Your task to perform on an android device: turn off wifi Image 0: 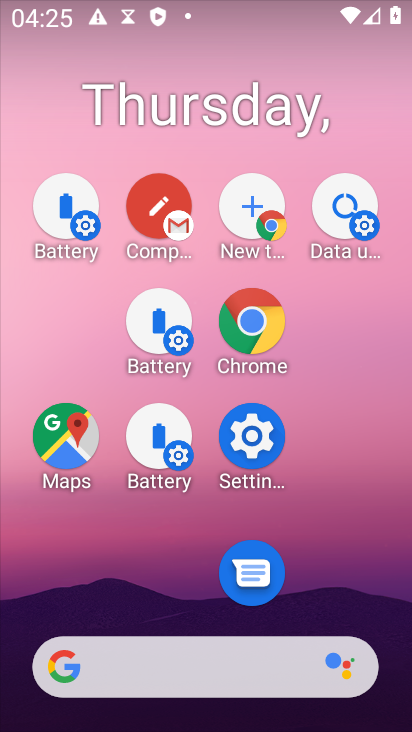
Step 0: drag from (174, 622) to (125, 283)
Your task to perform on an android device: turn off wifi Image 1: 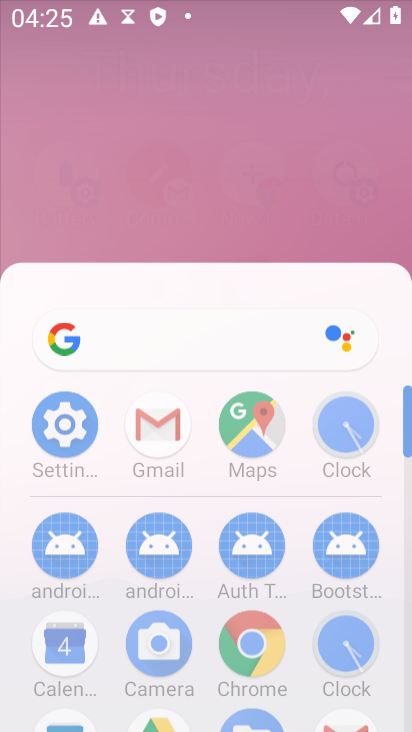
Step 1: drag from (192, 470) to (161, 278)
Your task to perform on an android device: turn off wifi Image 2: 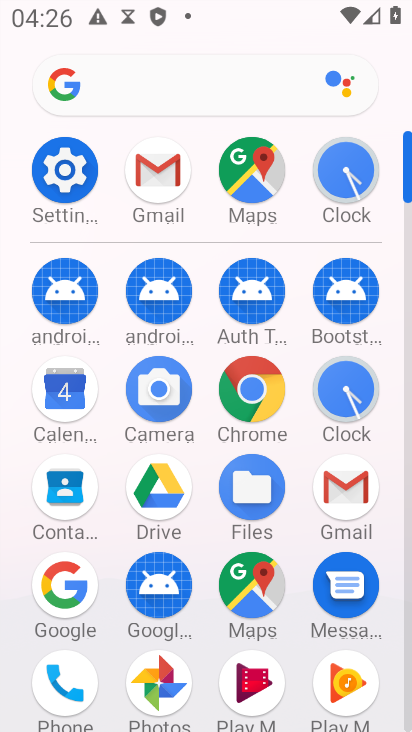
Step 2: click (53, 178)
Your task to perform on an android device: turn off wifi Image 3: 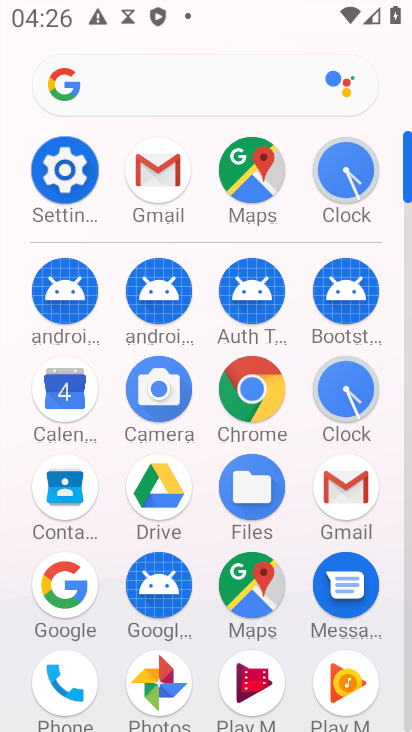
Step 3: click (52, 178)
Your task to perform on an android device: turn off wifi Image 4: 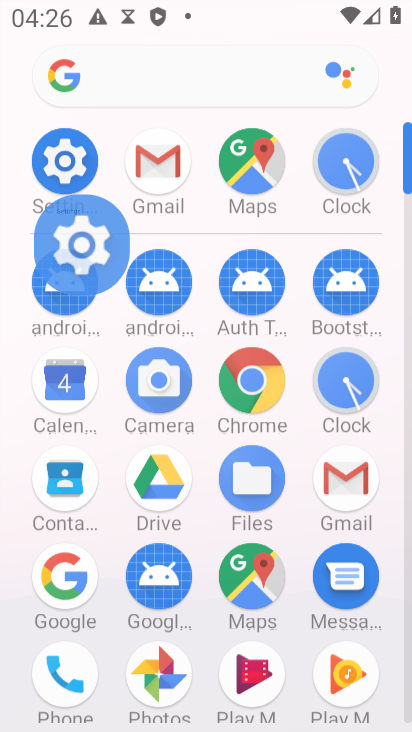
Step 4: click (53, 179)
Your task to perform on an android device: turn off wifi Image 5: 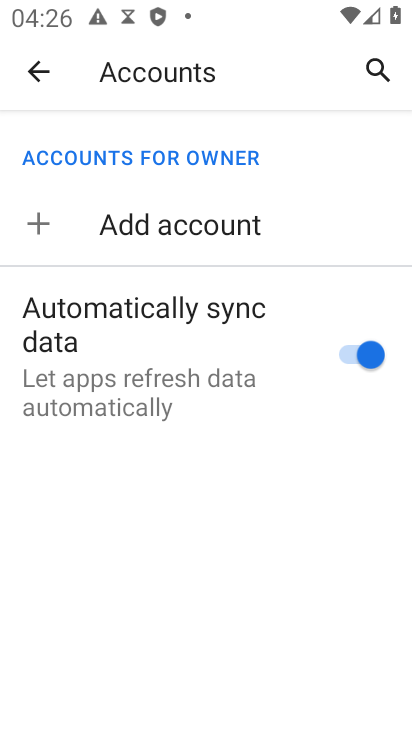
Step 5: click (32, 75)
Your task to perform on an android device: turn off wifi Image 6: 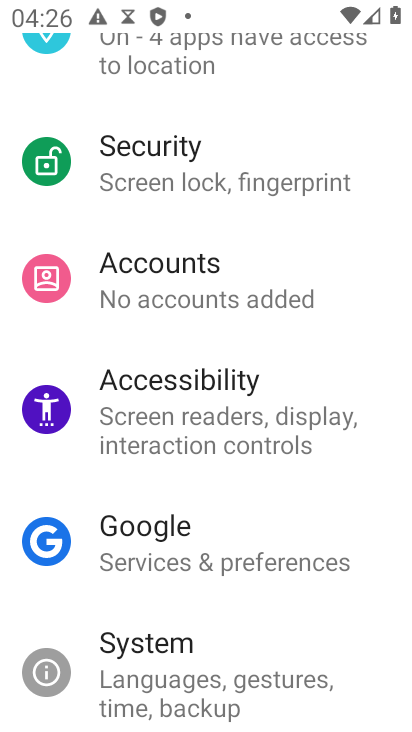
Step 6: drag from (139, 170) to (179, 461)
Your task to perform on an android device: turn off wifi Image 7: 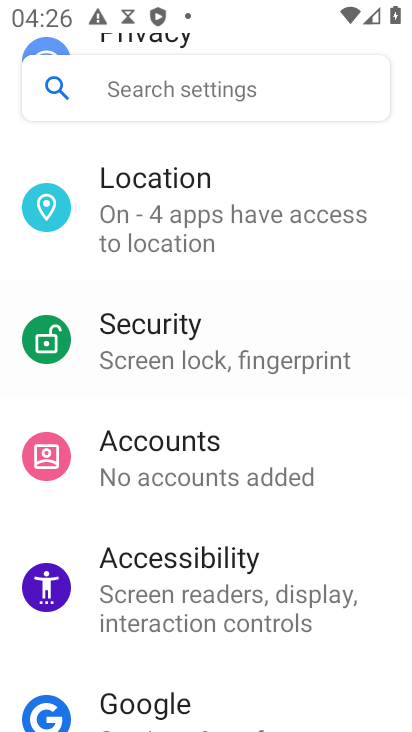
Step 7: drag from (146, 162) to (206, 276)
Your task to perform on an android device: turn off wifi Image 8: 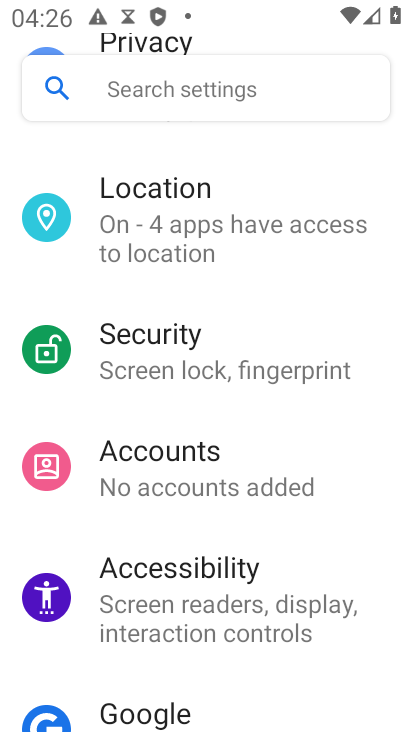
Step 8: drag from (155, 290) to (288, 622)
Your task to perform on an android device: turn off wifi Image 9: 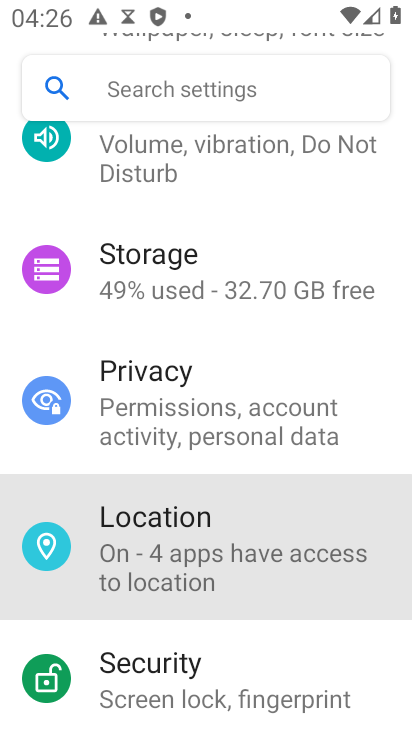
Step 9: drag from (290, 366) to (278, 581)
Your task to perform on an android device: turn off wifi Image 10: 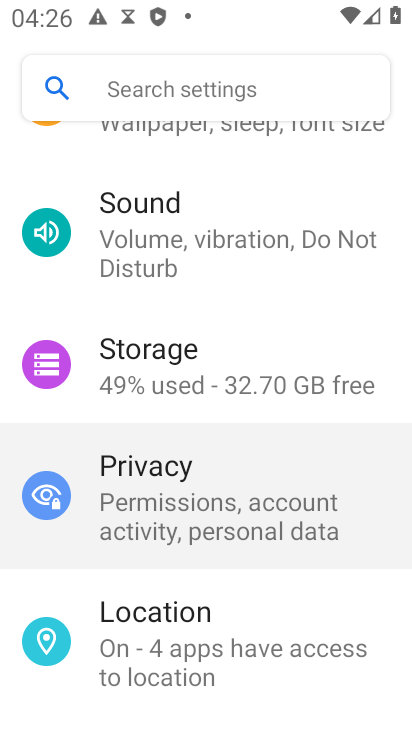
Step 10: drag from (265, 373) to (312, 652)
Your task to perform on an android device: turn off wifi Image 11: 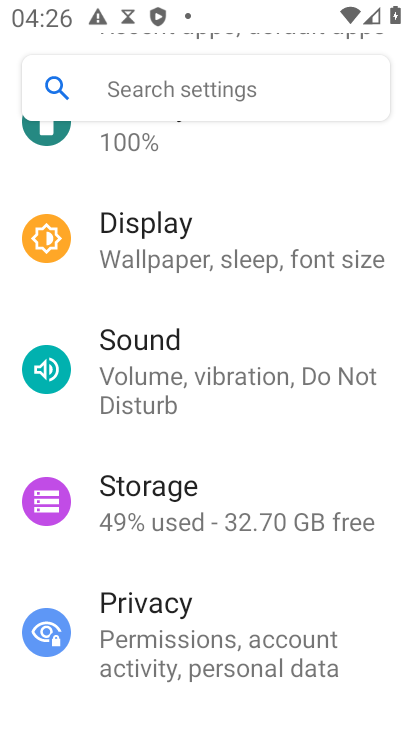
Step 11: drag from (256, 367) to (288, 619)
Your task to perform on an android device: turn off wifi Image 12: 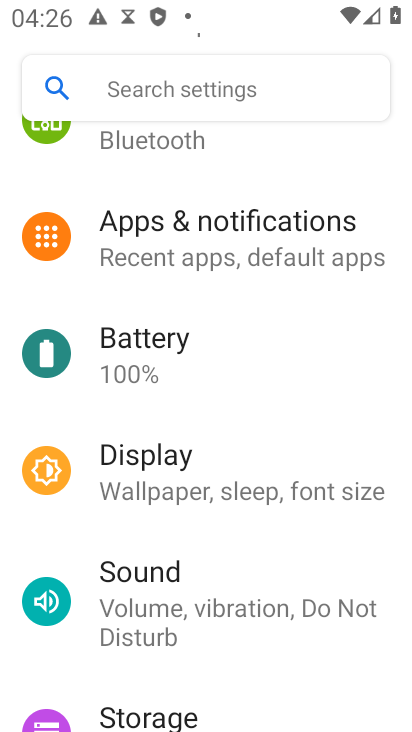
Step 12: drag from (260, 399) to (251, 706)
Your task to perform on an android device: turn off wifi Image 13: 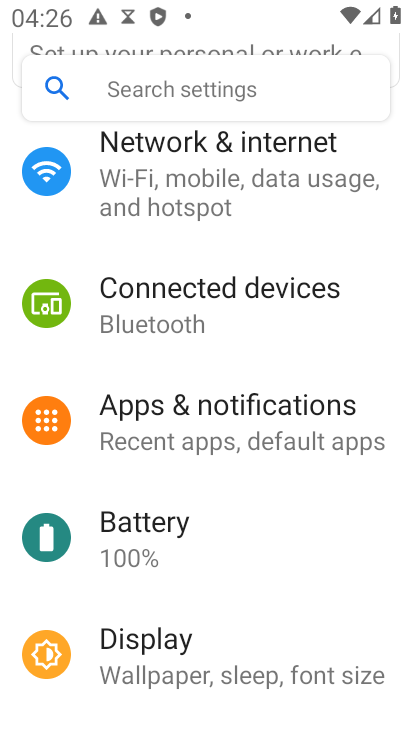
Step 13: drag from (219, 330) to (246, 625)
Your task to perform on an android device: turn off wifi Image 14: 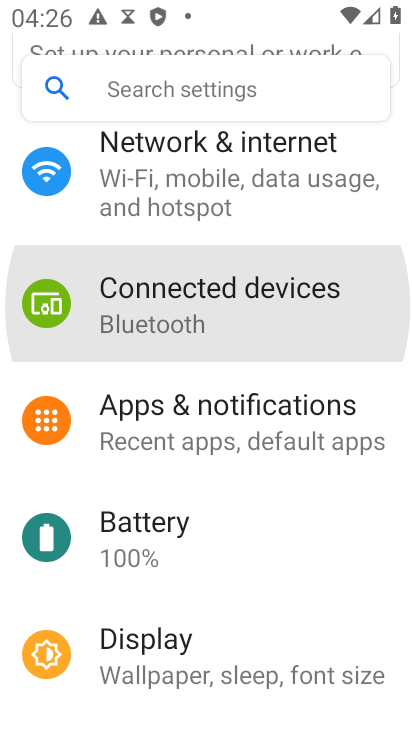
Step 14: drag from (210, 335) to (251, 652)
Your task to perform on an android device: turn off wifi Image 15: 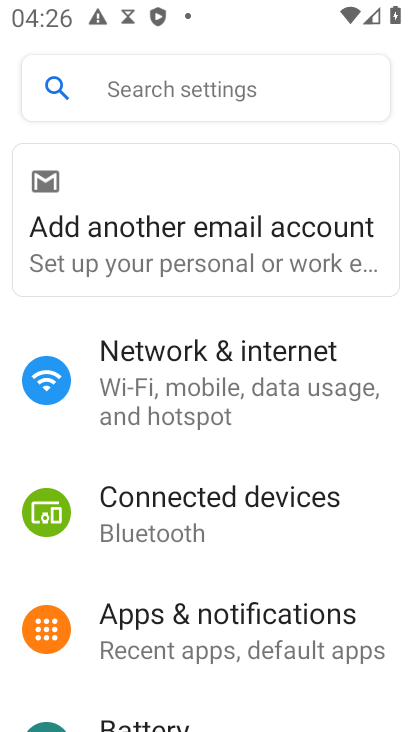
Step 15: click (228, 380)
Your task to perform on an android device: turn off wifi Image 16: 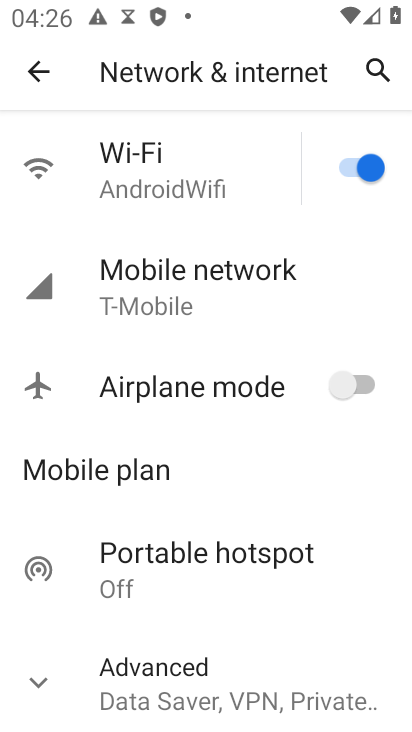
Step 16: click (374, 171)
Your task to perform on an android device: turn off wifi Image 17: 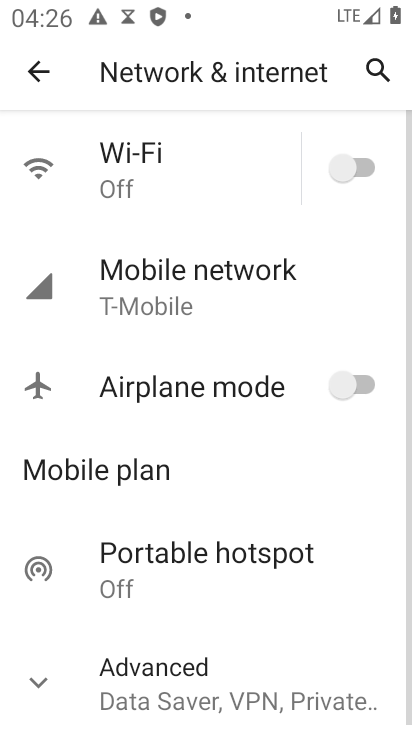
Step 17: task complete